Your task to perform on an android device: Show me recent news Image 0: 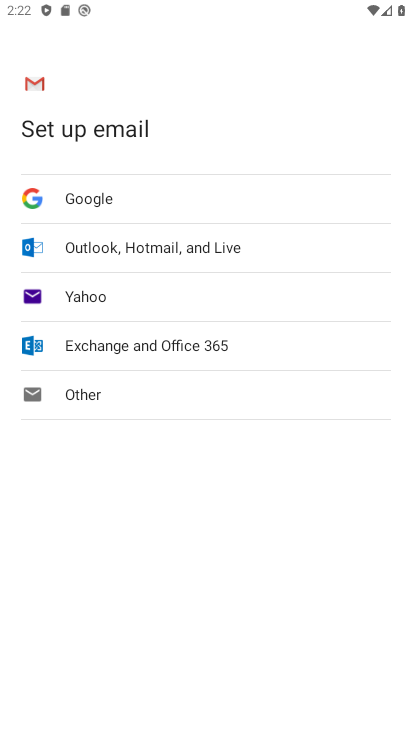
Step 0: press home button
Your task to perform on an android device: Show me recent news Image 1: 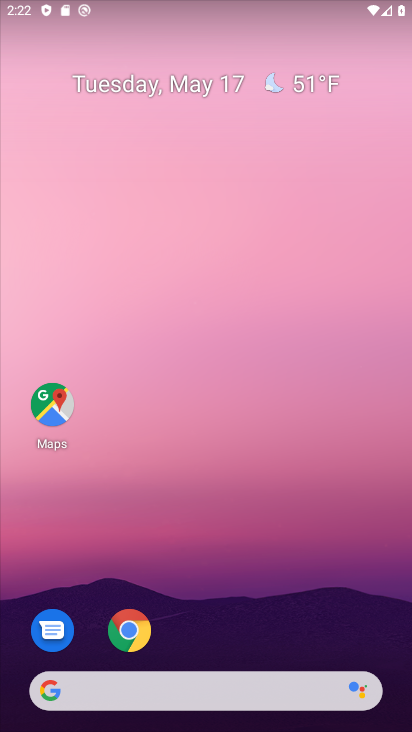
Step 1: drag from (223, 636) to (251, 173)
Your task to perform on an android device: Show me recent news Image 2: 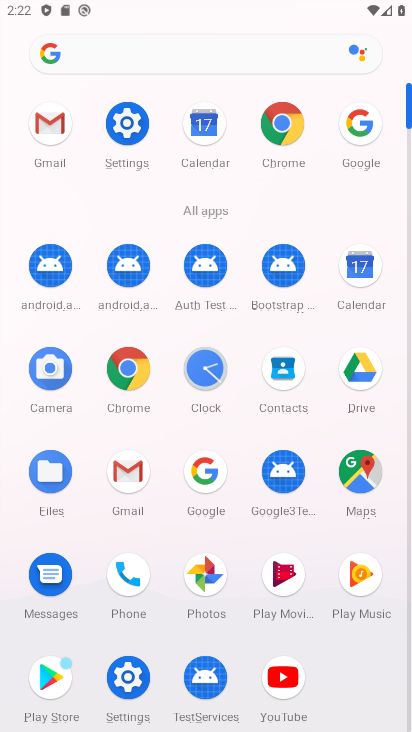
Step 2: click (360, 161)
Your task to perform on an android device: Show me recent news Image 3: 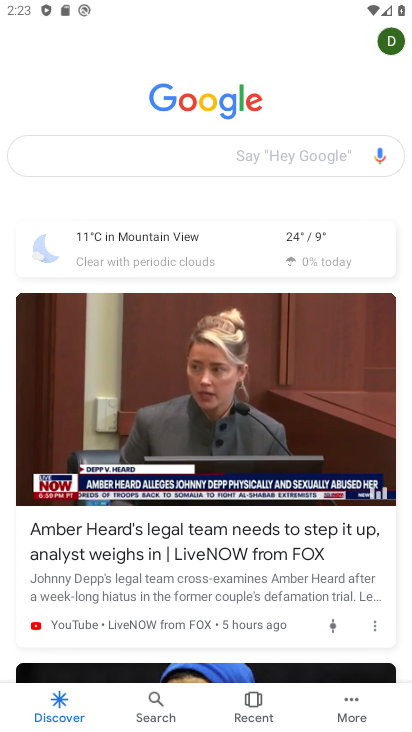
Step 3: click (164, 158)
Your task to perform on an android device: Show me recent news Image 4: 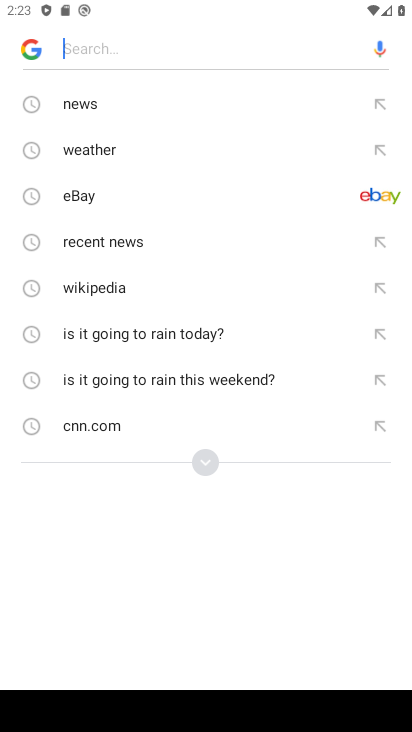
Step 4: click (117, 250)
Your task to perform on an android device: Show me recent news Image 5: 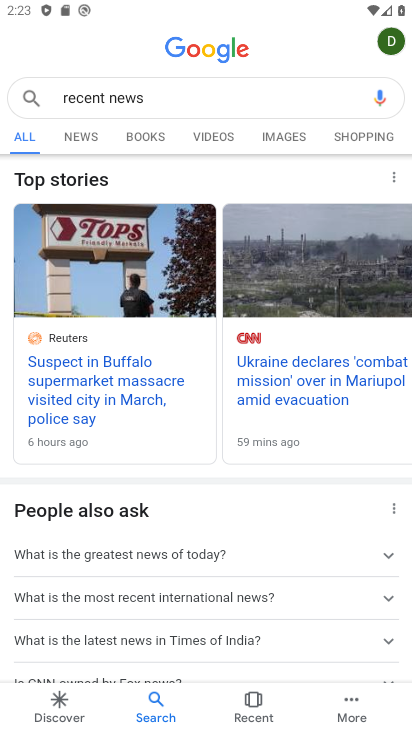
Step 5: task complete